Your task to perform on an android device: Open Reddit.com Image 0: 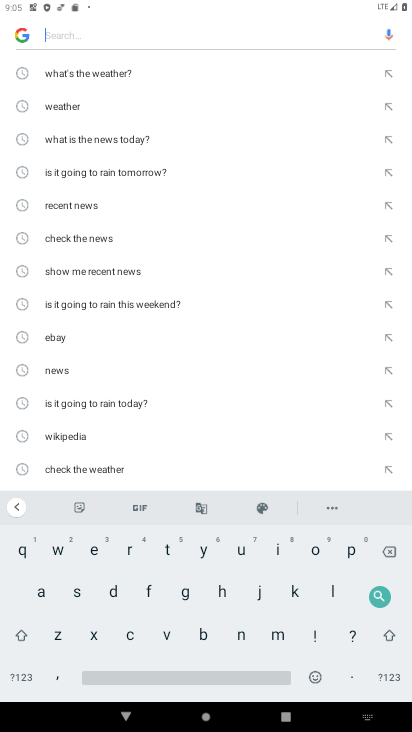
Step 0: press home button
Your task to perform on an android device: Open Reddit.com Image 1: 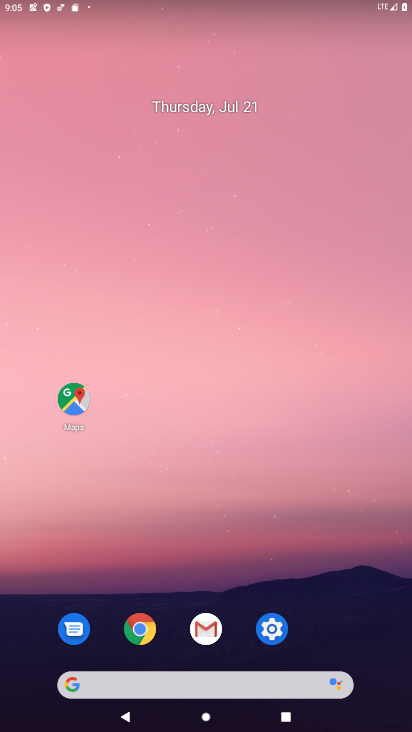
Step 1: click (139, 630)
Your task to perform on an android device: Open Reddit.com Image 2: 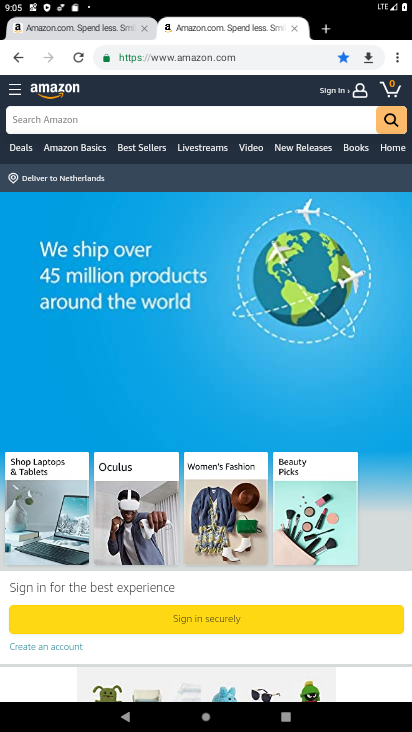
Step 2: click (188, 54)
Your task to perform on an android device: Open Reddit.com Image 3: 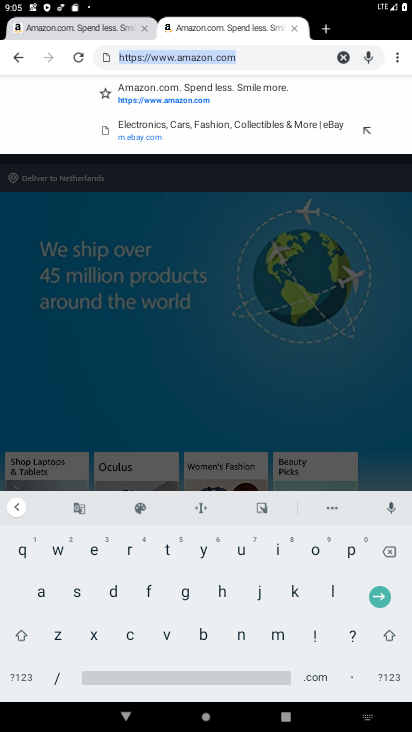
Step 3: click (130, 547)
Your task to perform on an android device: Open Reddit.com Image 4: 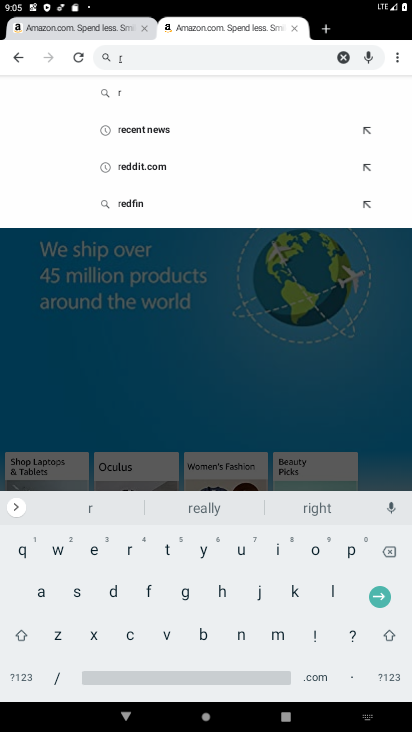
Step 4: click (143, 169)
Your task to perform on an android device: Open Reddit.com Image 5: 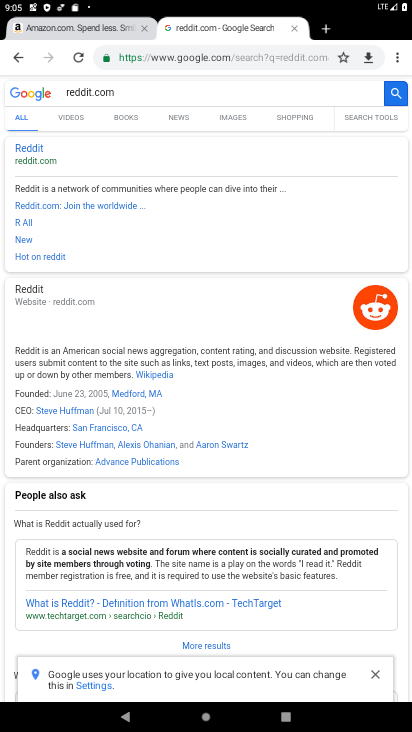
Step 5: click (34, 150)
Your task to perform on an android device: Open Reddit.com Image 6: 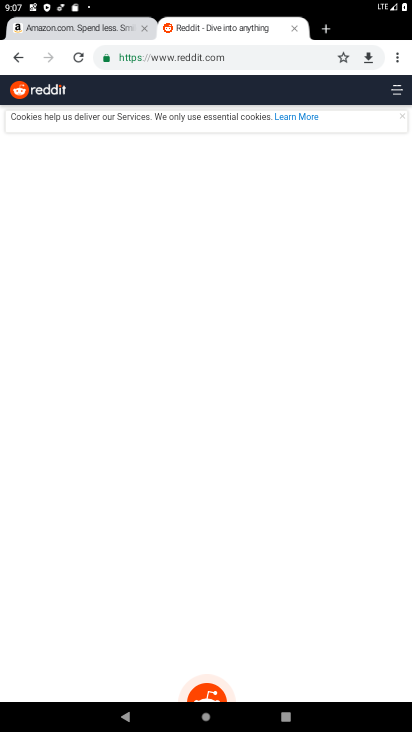
Step 6: task complete